Your task to perform on an android device: change alarm snooze length Image 0: 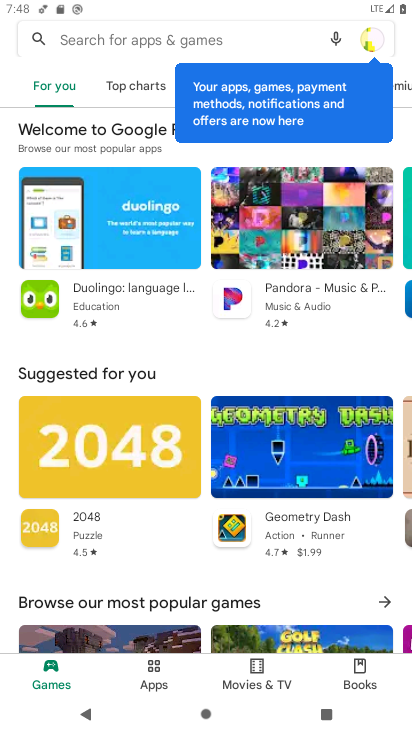
Step 0: press home button
Your task to perform on an android device: change alarm snooze length Image 1: 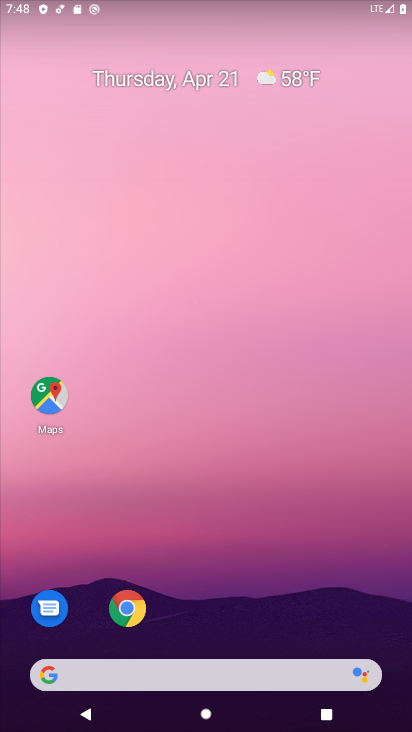
Step 1: drag from (289, 584) to (290, 159)
Your task to perform on an android device: change alarm snooze length Image 2: 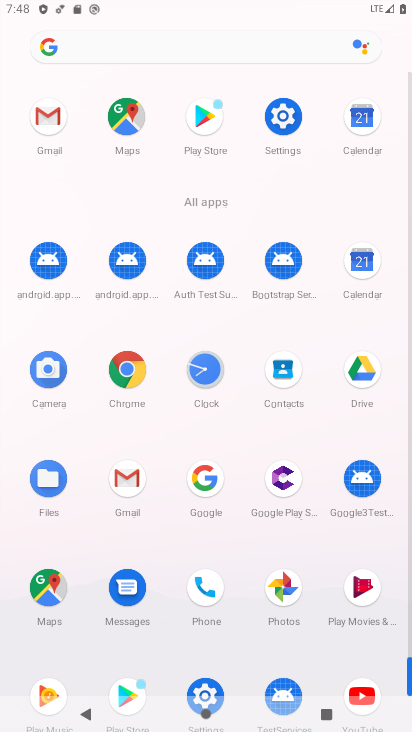
Step 2: click (201, 368)
Your task to perform on an android device: change alarm snooze length Image 3: 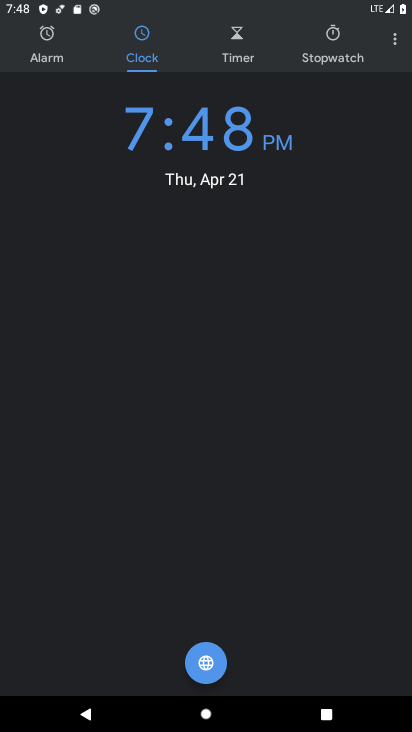
Step 3: click (397, 46)
Your task to perform on an android device: change alarm snooze length Image 4: 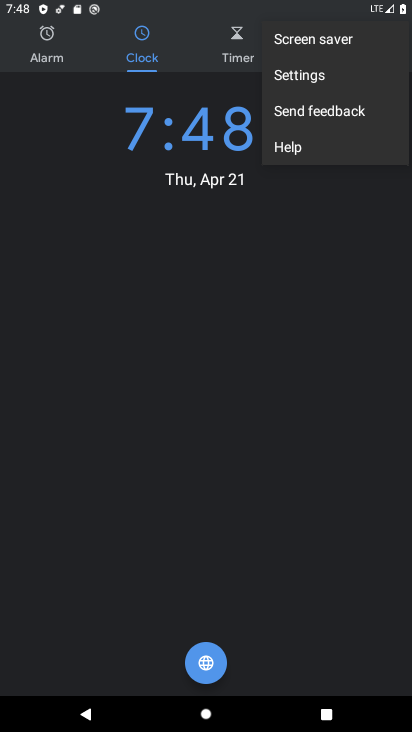
Step 4: click (364, 78)
Your task to perform on an android device: change alarm snooze length Image 5: 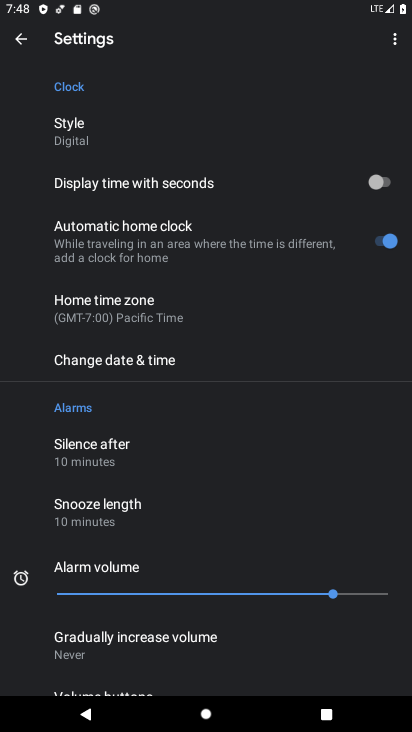
Step 5: click (163, 518)
Your task to perform on an android device: change alarm snooze length Image 6: 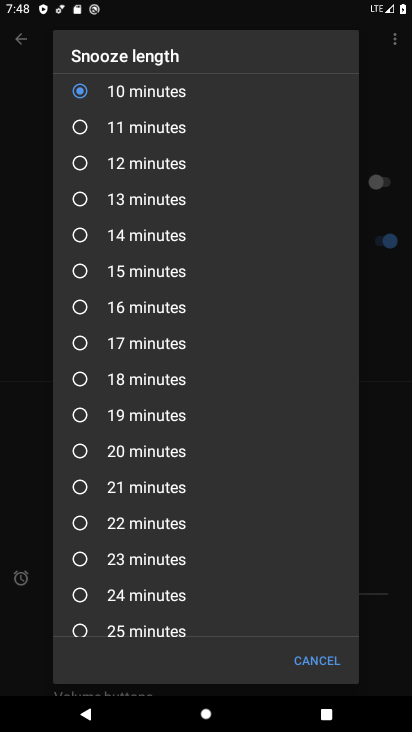
Step 6: click (119, 129)
Your task to perform on an android device: change alarm snooze length Image 7: 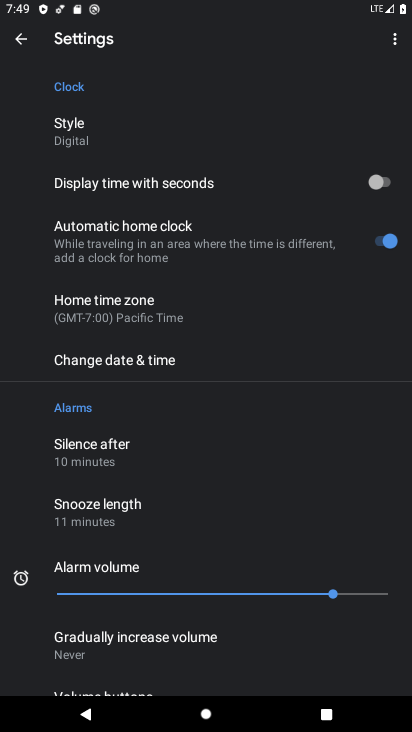
Step 7: task complete